Your task to perform on an android device: open device folders in google photos Image 0: 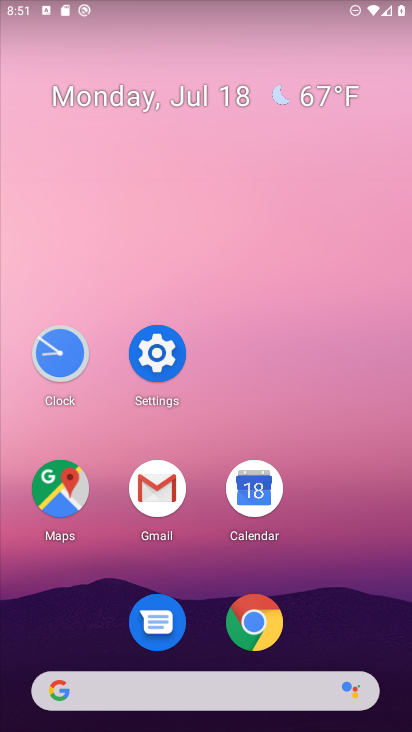
Step 0: drag from (396, 697) to (326, 114)
Your task to perform on an android device: open device folders in google photos Image 1: 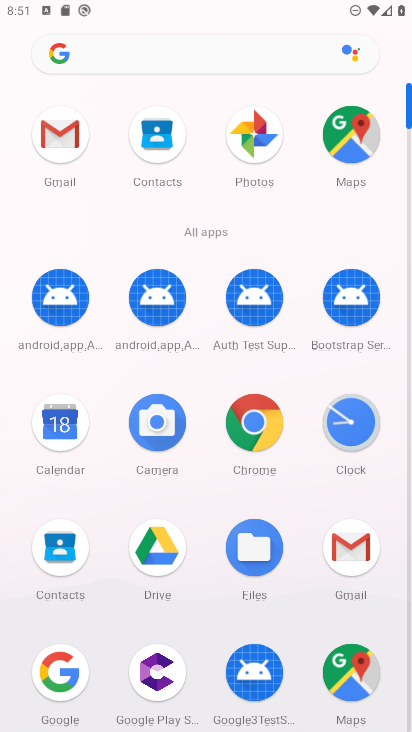
Step 1: drag from (290, 630) to (278, 318)
Your task to perform on an android device: open device folders in google photos Image 2: 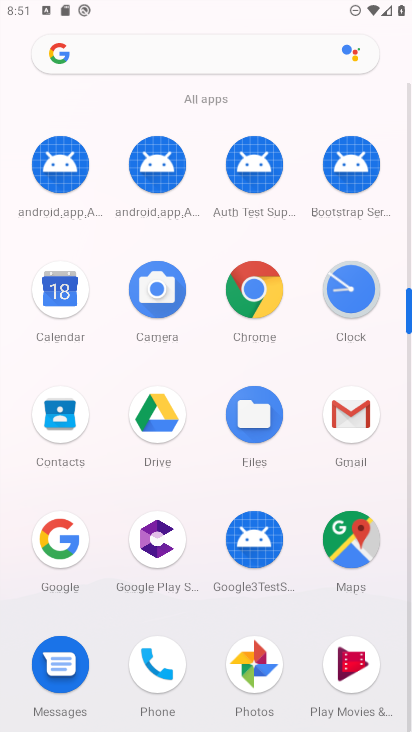
Step 2: click (261, 659)
Your task to perform on an android device: open device folders in google photos Image 3: 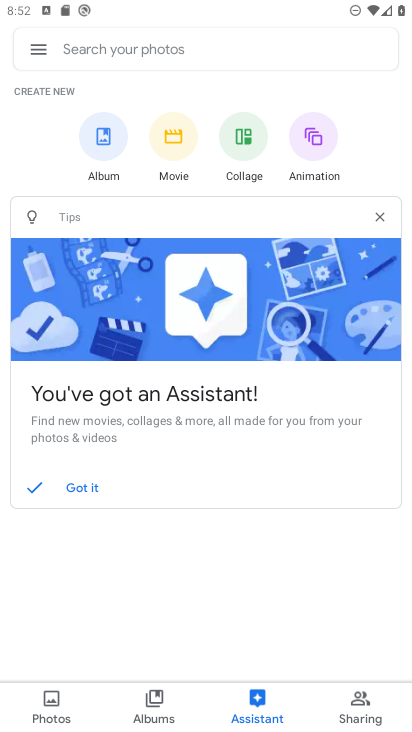
Step 3: click (39, 52)
Your task to perform on an android device: open device folders in google photos Image 4: 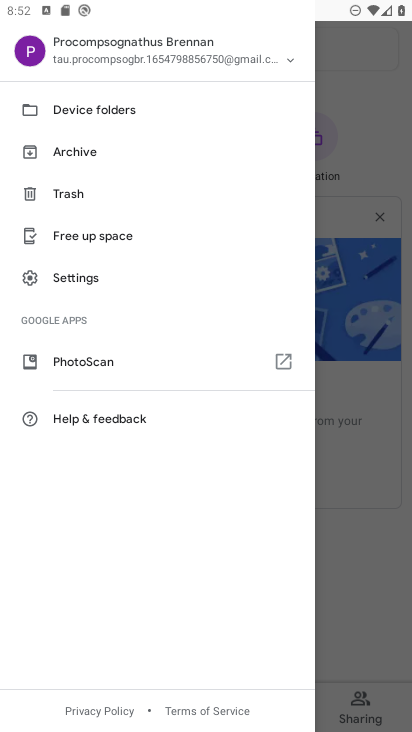
Step 4: click (95, 104)
Your task to perform on an android device: open device folders in google photos Image 5: 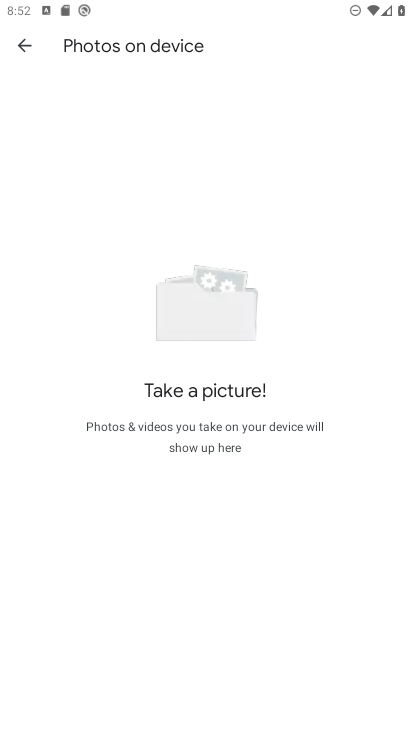
Step 5: task complete